Your task to perform on an android device: Show me popular games on the Play Store Image 0: 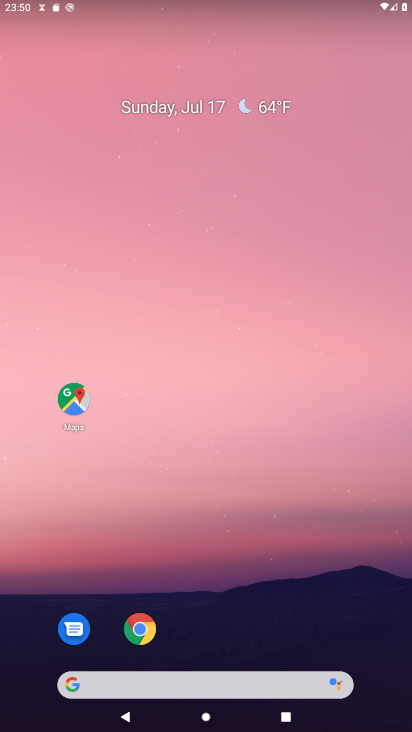
Step 0: drag from (269, 592) to (276, 140)
Your task to perform on an android device: Show me popular games on the Play Store Image 1: 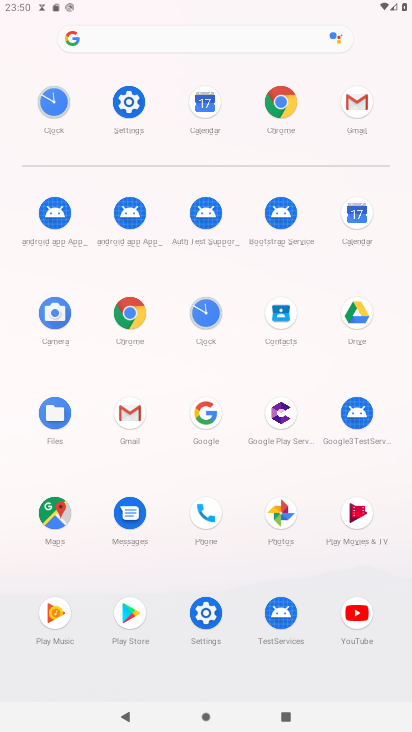
Step 1: click (108, 612)
Your task to perform on an android device: Show me popular games on the Play Store Image 2: 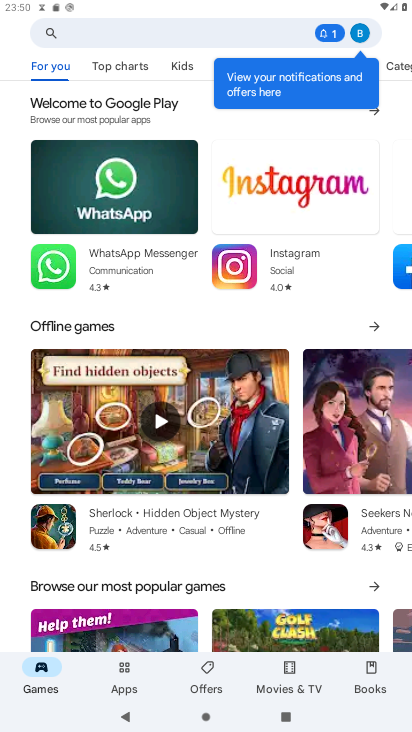
Step 2: task complete